Your task to perform on an android device: Open Chrome and go to the settings page Image 0: 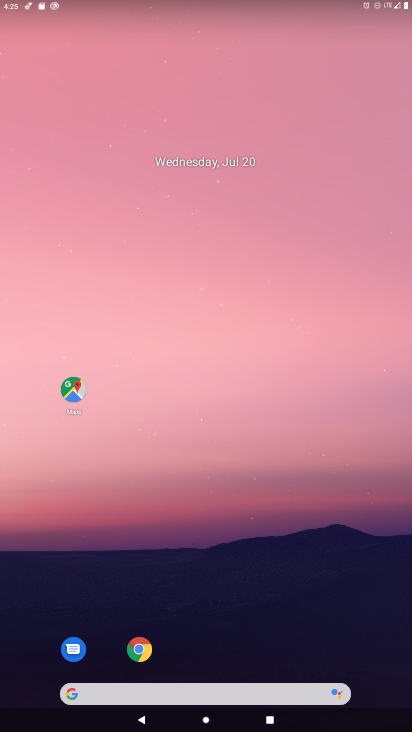
Step 0: click (140, 649)
Your task to perform on an android device: Open Chrome and go to the settings page Image 1: 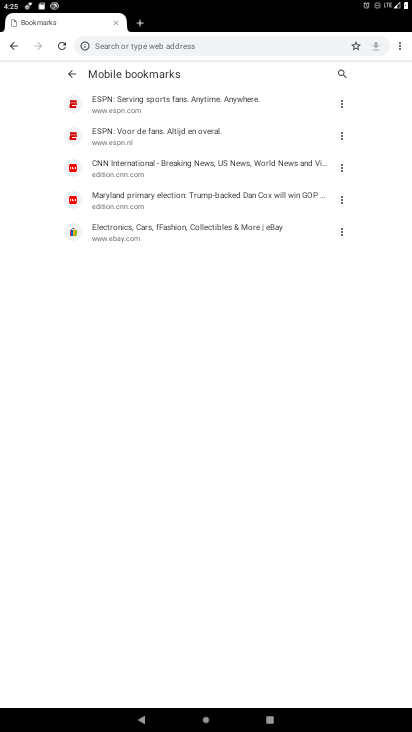
Step 1: click (401, 45)
Your task to perform on an android device: Open Chrome and go to the settings page Image 2: 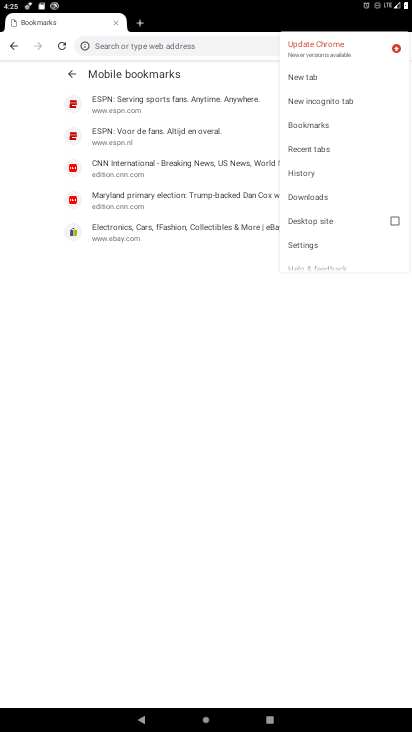
Step 2: click (312, 245)
Your task to perform on an android device: Open Chrome and go to the settings page Image 3: 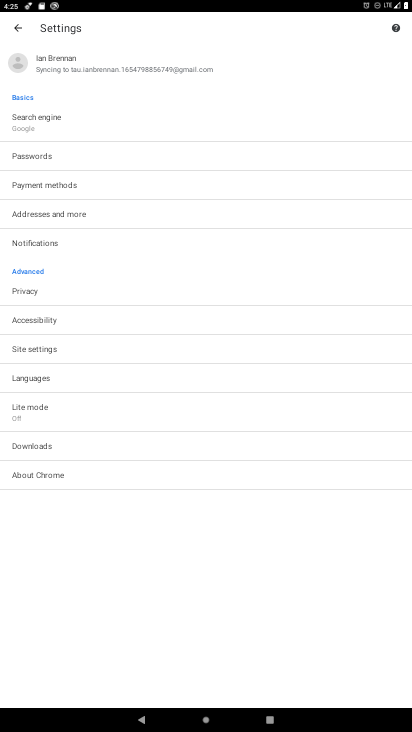
Step 3: task complete